Your task to perform on an android device: Go to ESPN.com Image 0: 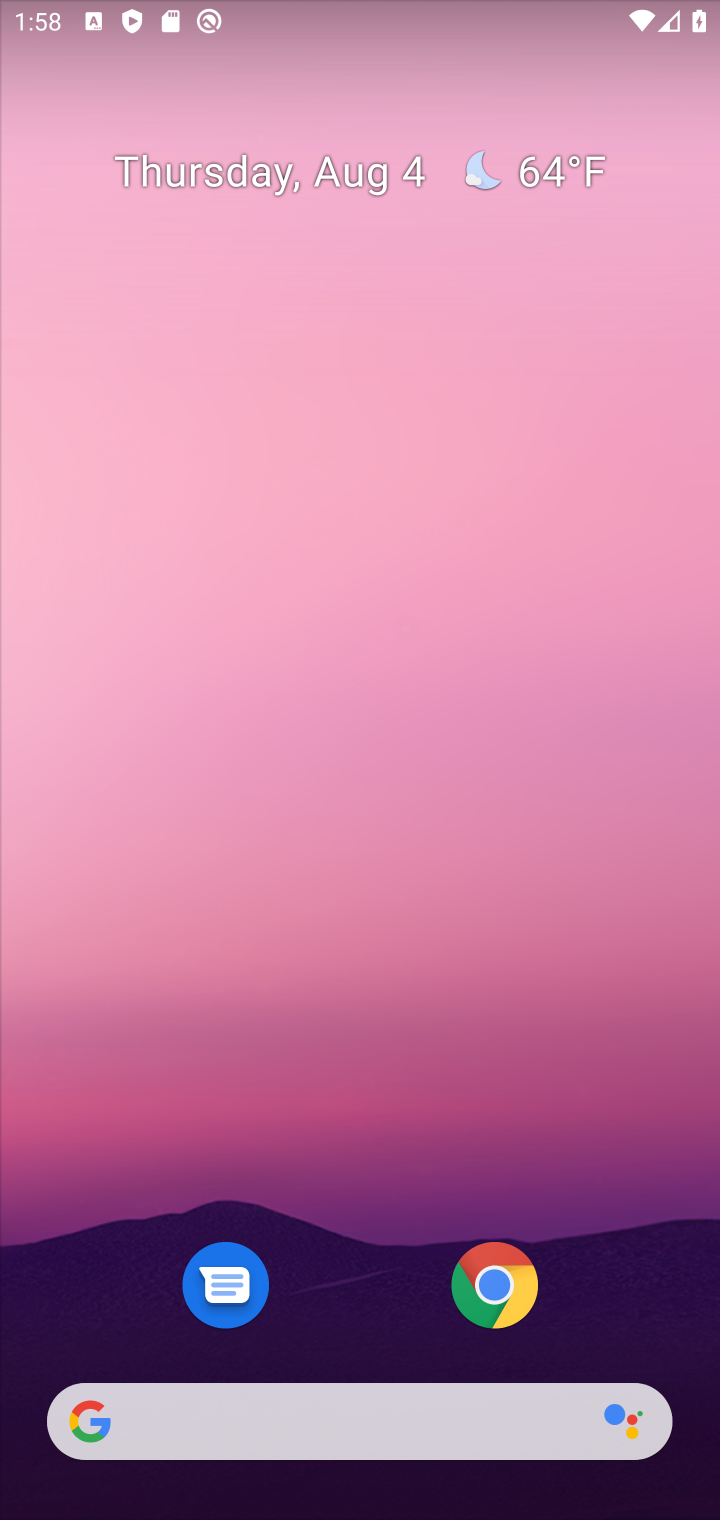
Step 0: click (490, 1280)
Your task to perform on an android device: Go to ESPN.com Image 1: 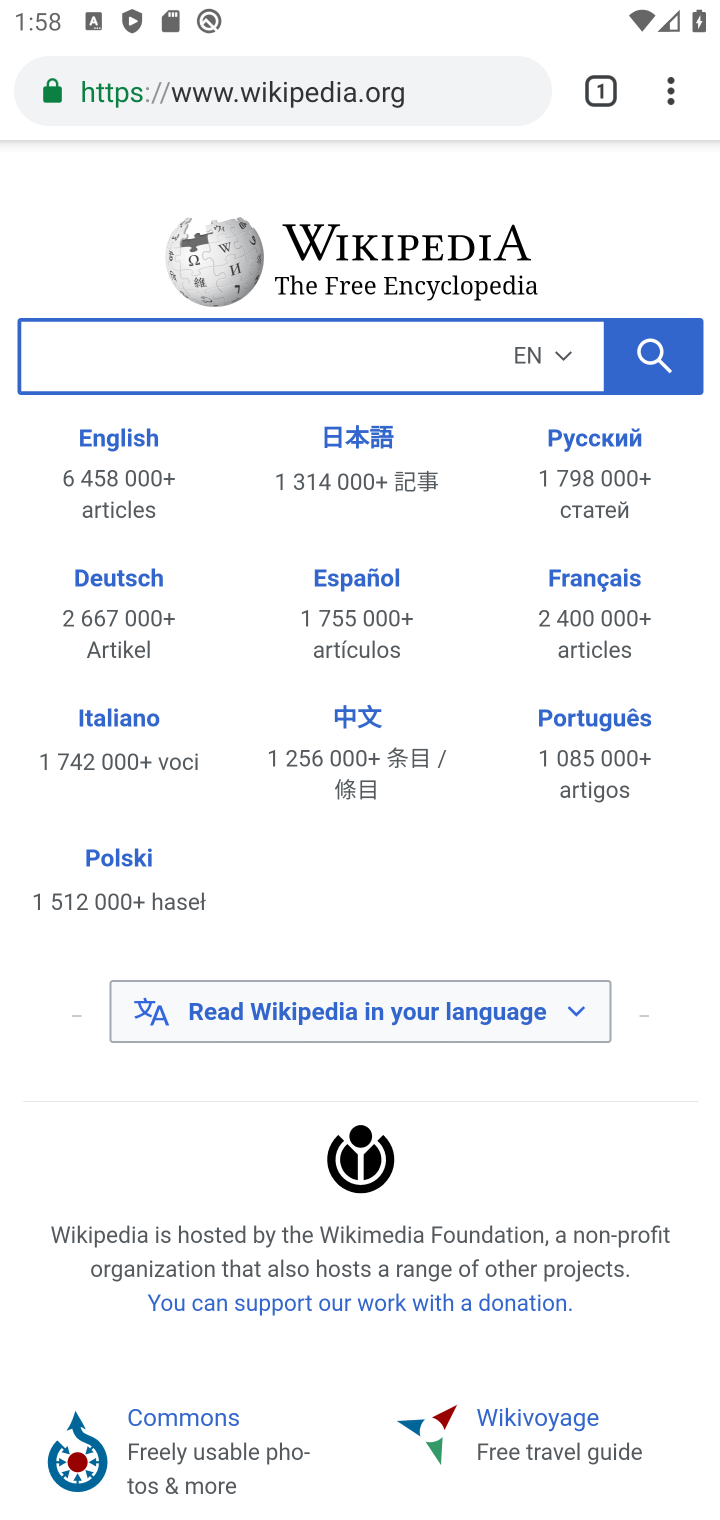
Step 1: click (458, 95)
Your task to perform on an android device: Go to ESPN.com Image 2: 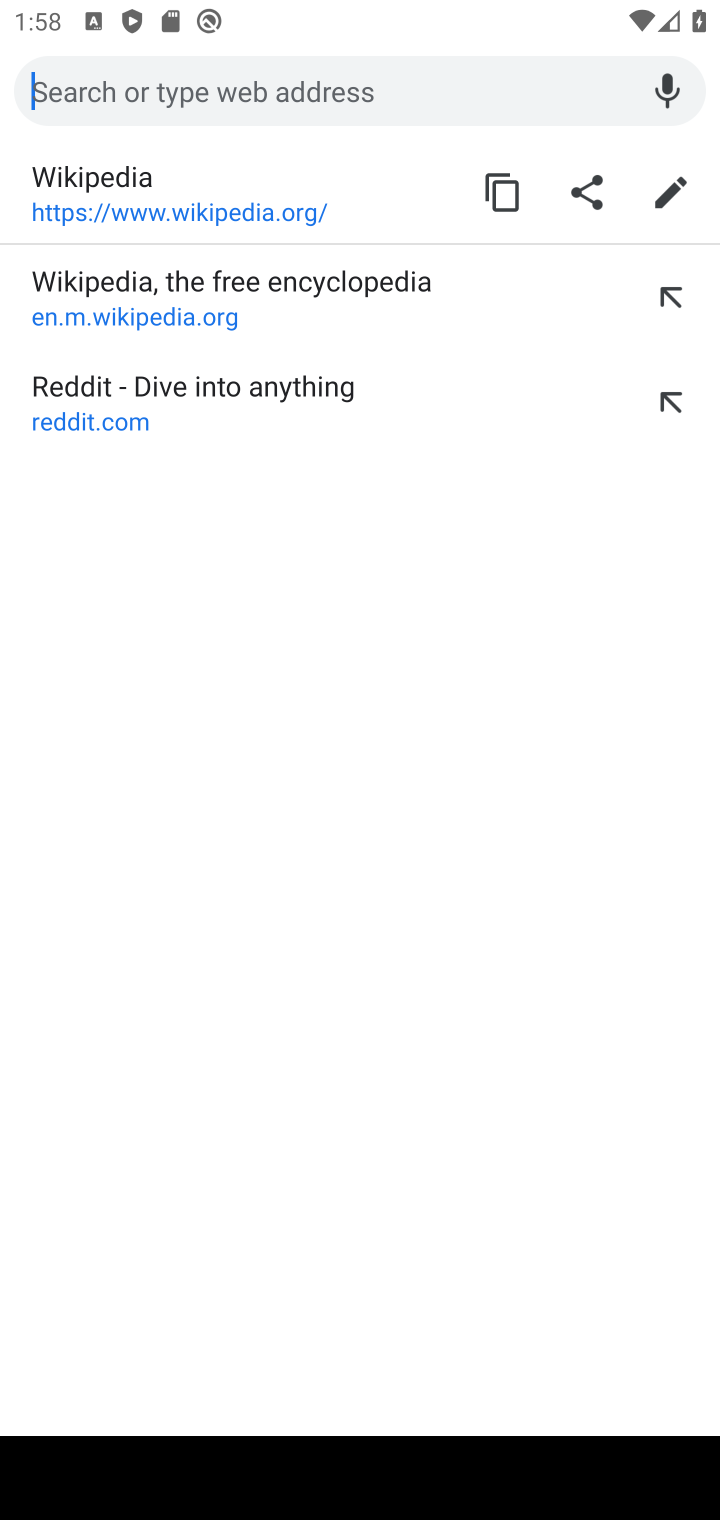
Step 2: type "espn.com"
Your task to perform on an android device: Go to ESPN.com Image 3: 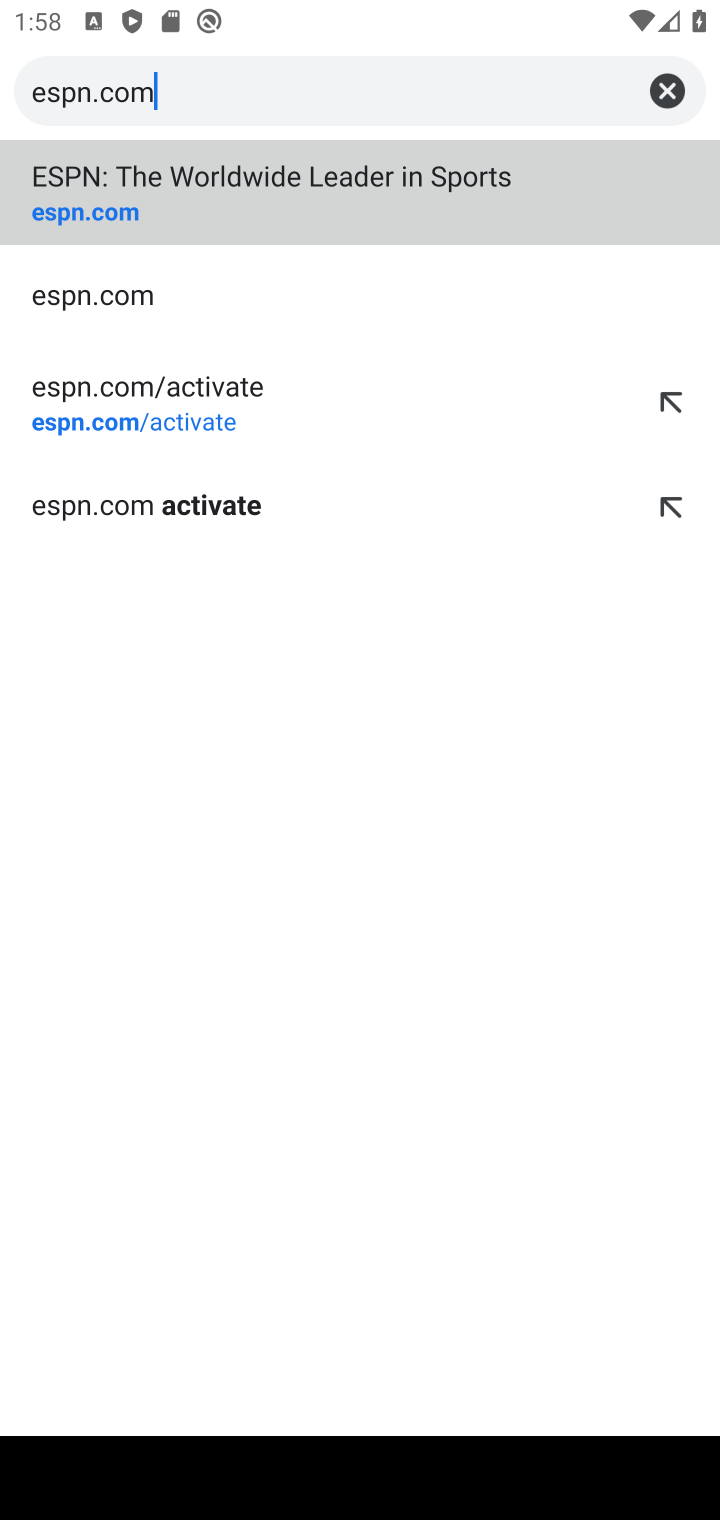
Step 3: click (102, 180)
Your task to perform on an android device: Go to ESPN.com Image 4: 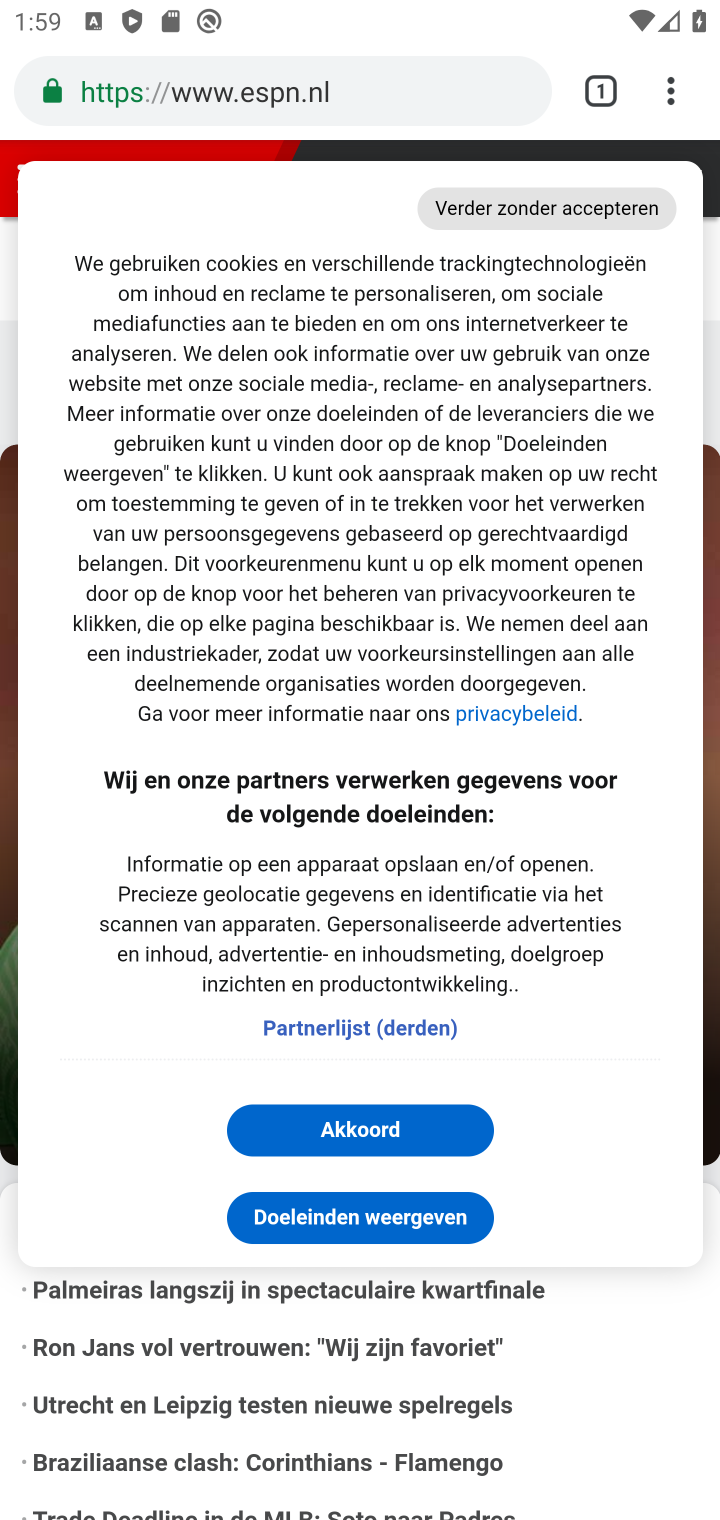
Step 4: drag from (558, 1175) to (514, 620)
Your task to perform on an android device: Go to ESPN.com Image 5: 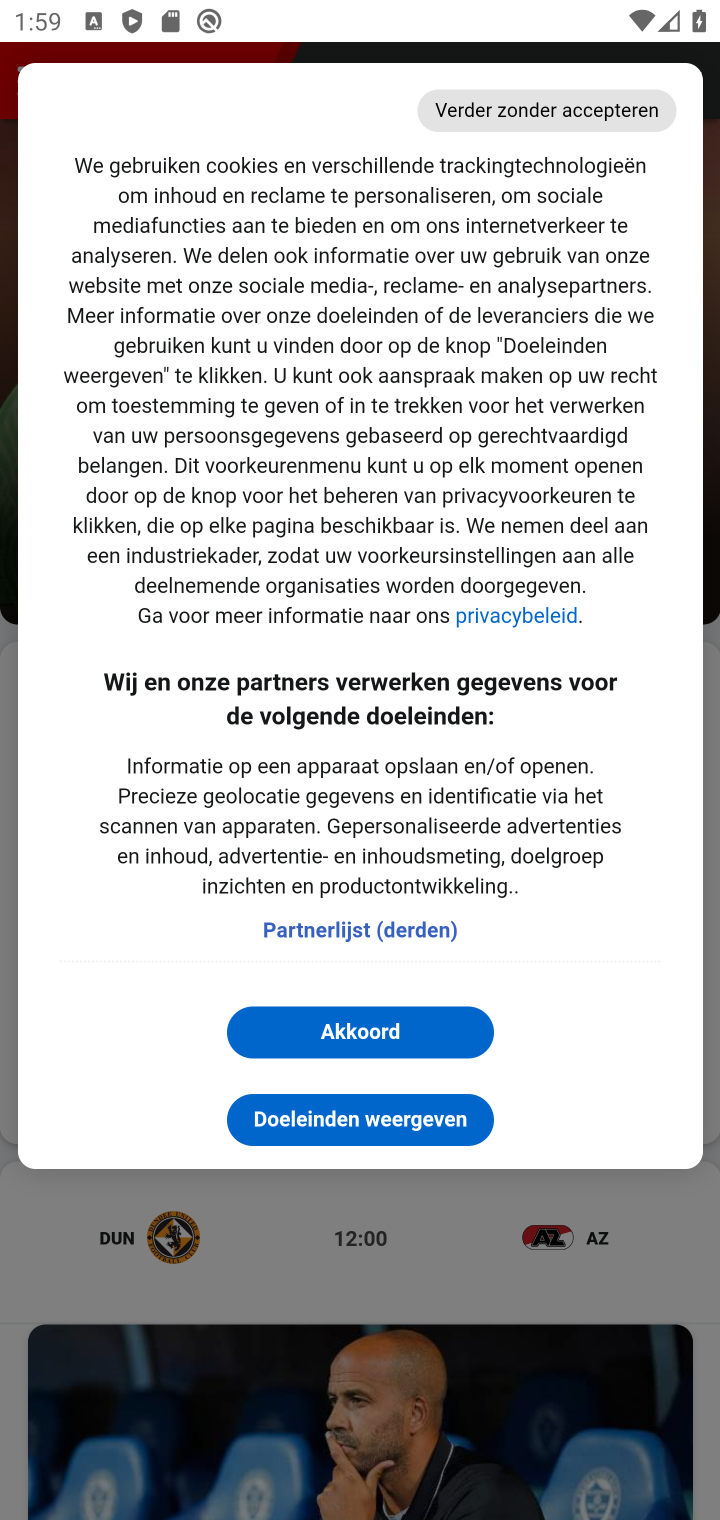
Step 5: click (341, 1026)
Your task to perform on an android device: Go to ESPN.com Image 6: 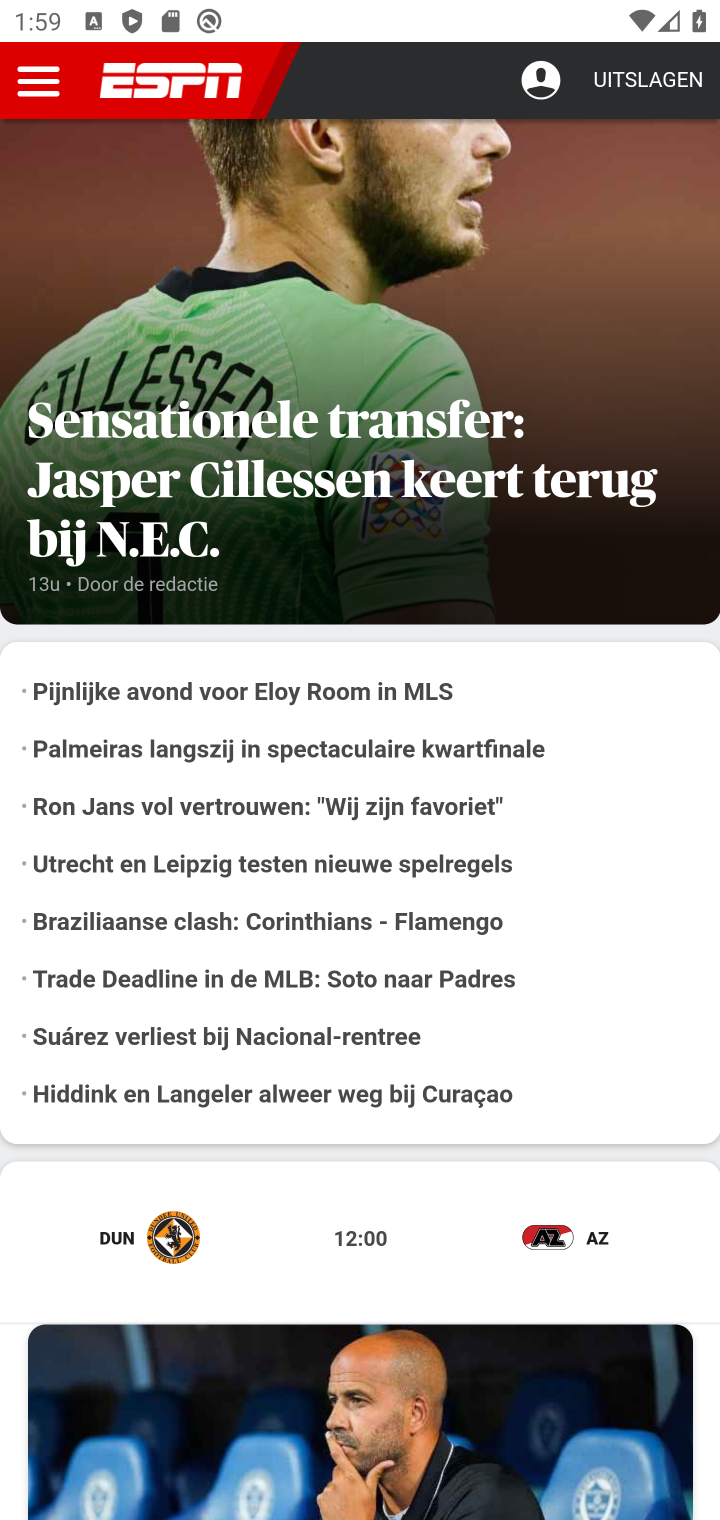
Step 6: task complete